Your task to perform on an android device: turn pop-ups on in chrome Image 0: 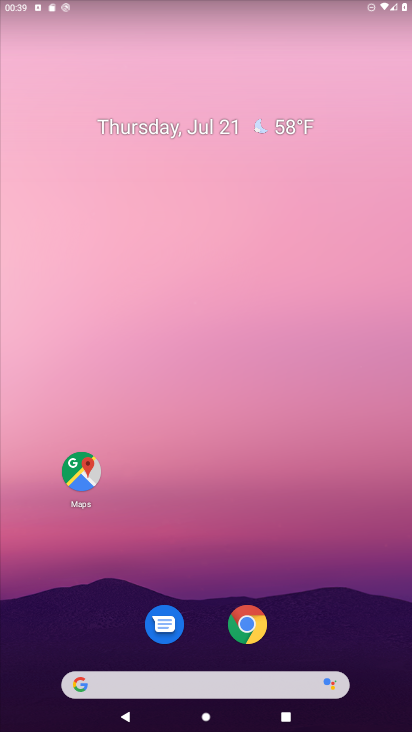
Step 0: click (259, 632)
Your task to perform on an android device: turn pop-ups on in chrome Image 1: 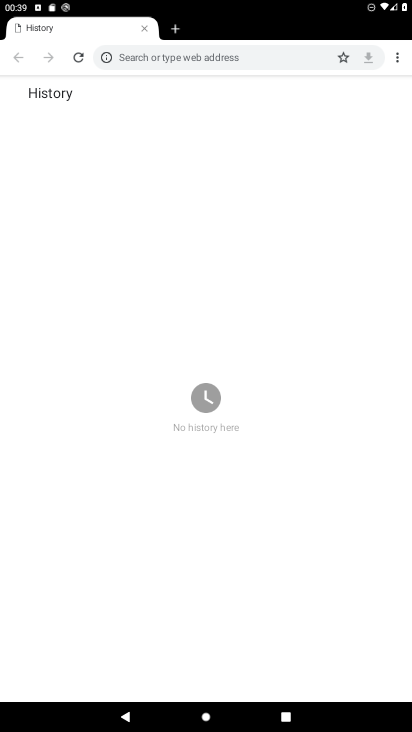
Step 1: click (401, 61)
Your task to perform on an android device: turn pop-ups on in chrome Image 2: 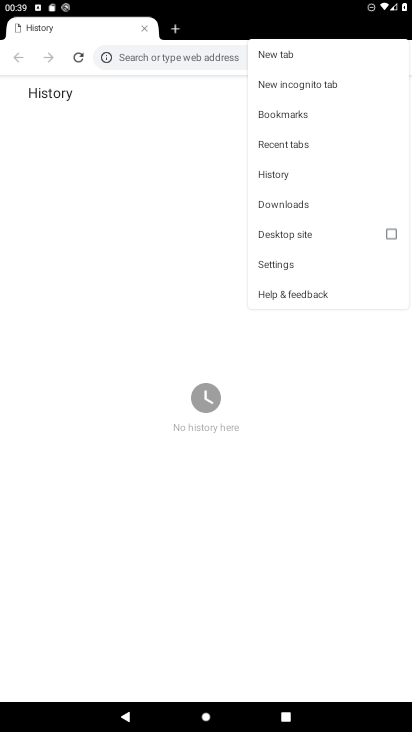
Step 2: click (278, 271)
Your task to perform on an android device: turn pop-ups on in chrome Image 3: 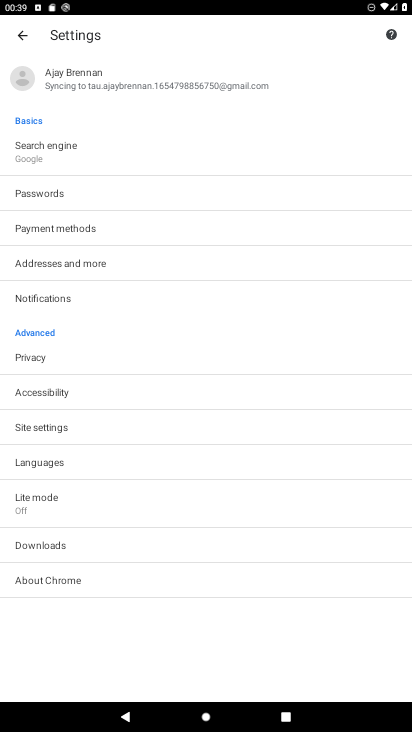
Step 3: click (90, 427)
Your task to perform on an android device: turn pop-ups on in chrome Image 4: 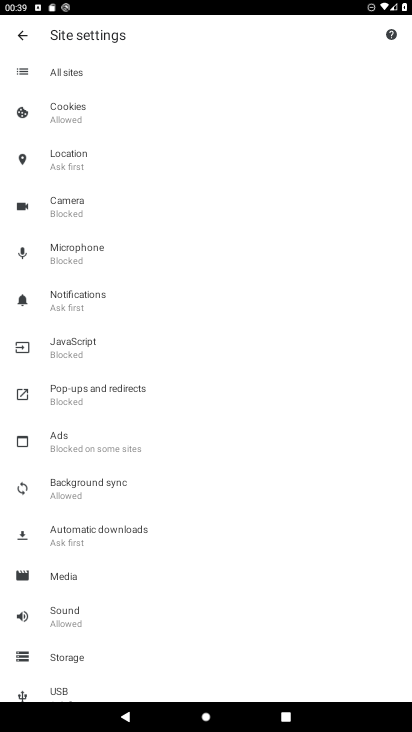
Step 4: click (150, 399)
Your task to perform on an android device: turn pop-ups on in chrome Image 5: 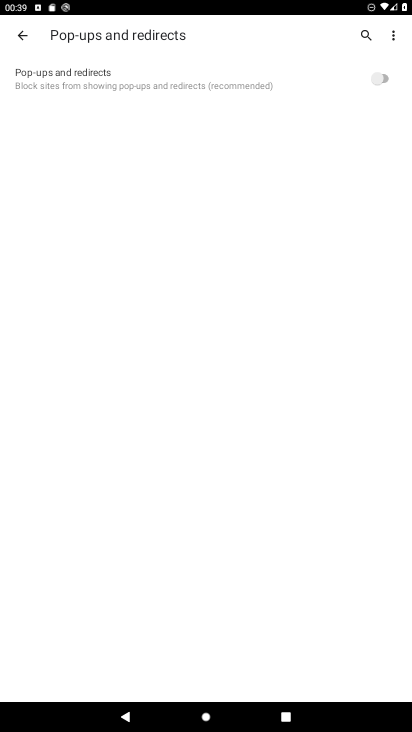
Step 5: click (392, 82)
Your task to perform on an android device: turn pop-ups on in chrome Image 6: 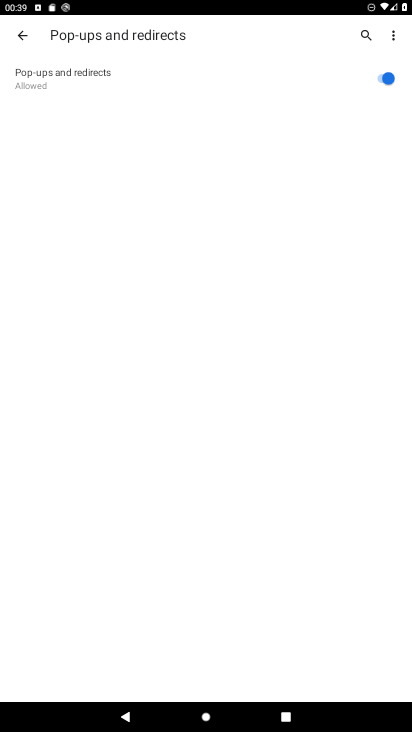
Step 6: task complete